Your task to perform on an android device: Show me productivity apps on the Play Store Image 0: 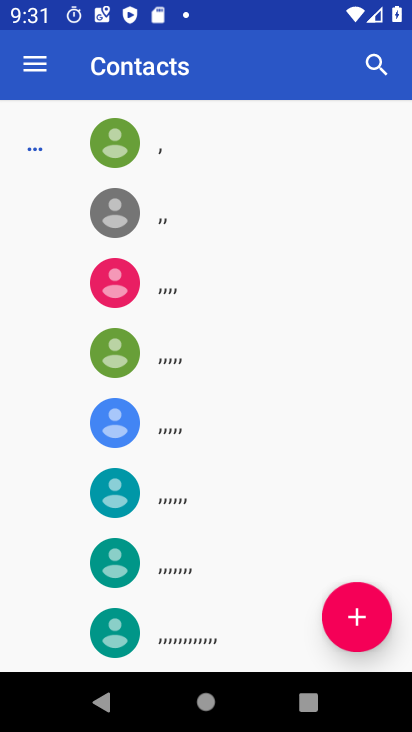
Step 0: press home button
Your task to perform on an android device: Show me productivity apps on the Play Store Image 1: 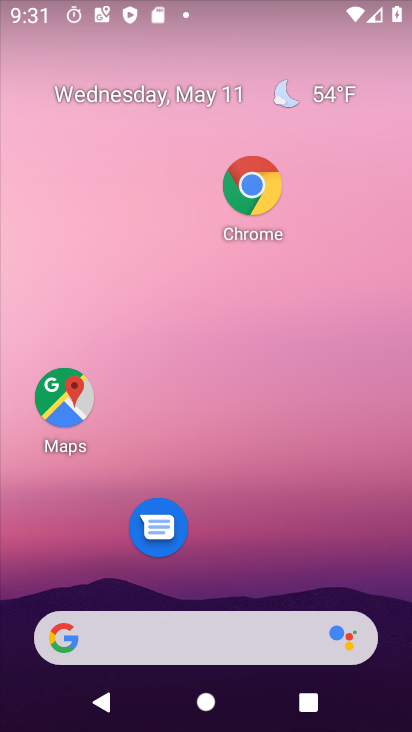
Step 1: drag from (263, 539) to (270, 122)
Your task to perform on an android device: Show me productivity apps on the Play Store Image 2: 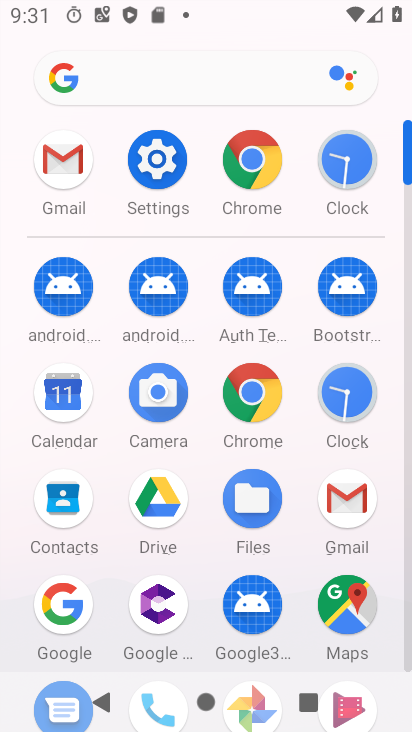
Step 2: drag from (202, 574) to (235, 123)
Your task to perform on an android device: Show me productivity apps on the Play Store Image 3: 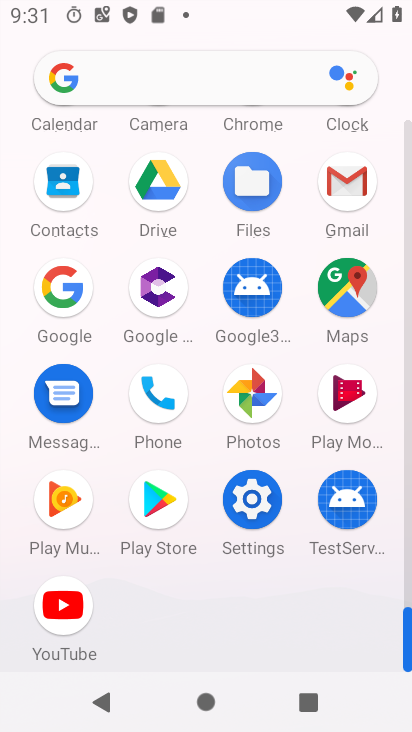
Step 3: click (161, 511)
Your task to perform on an android device: Show me productivity apps on the Play Store Image 4: 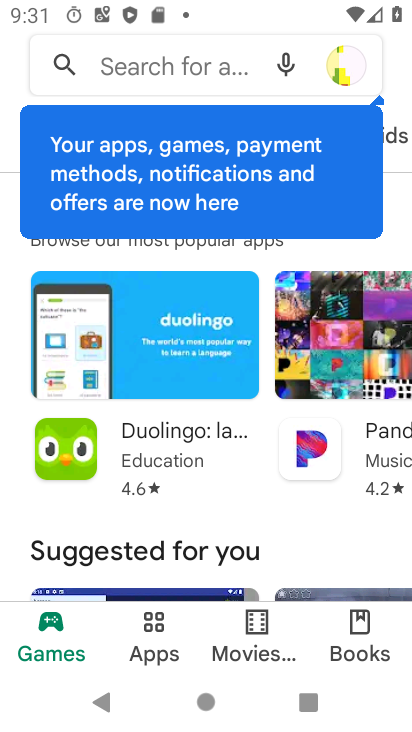
Step 4: click (252, 511)
Your task to perform on an android device: Show me productivity apps on the Play Store Image 5: 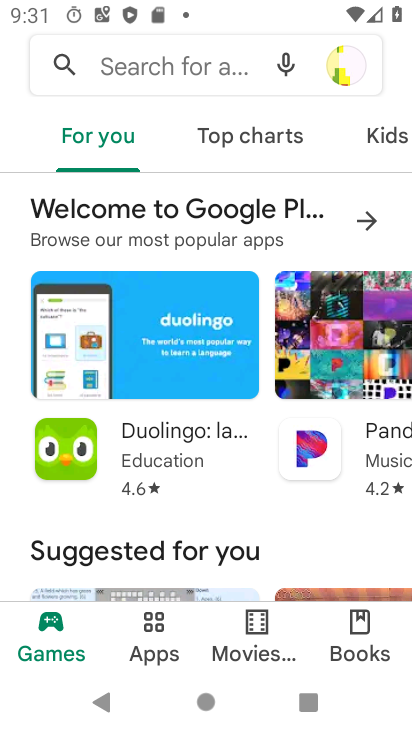
Step 5: click (159, 636)
Your task to perform on an android device: Show me productivity apps on the Play Store Image 6: 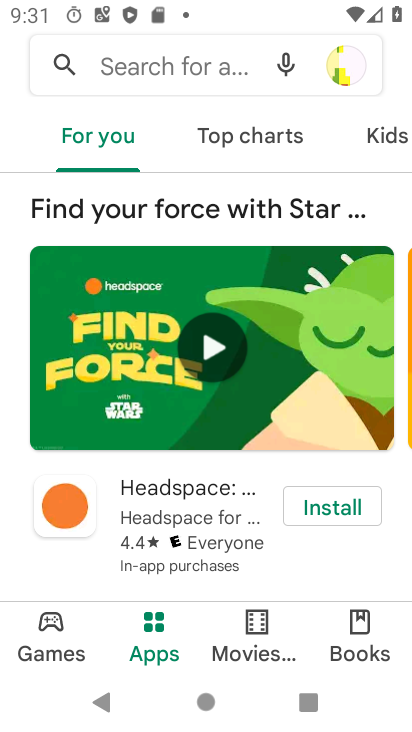
Step 6: click (252, 134)
Your task to perform on an android device: Show me productivity apps on the Play Store Image 7: 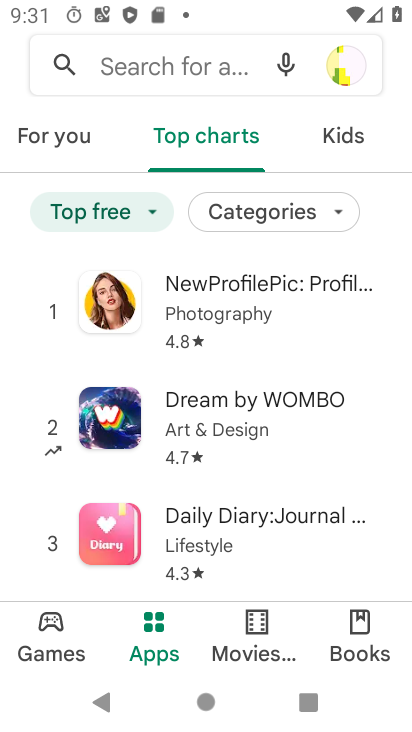
Step 7: click (316, 209)
Your task to perform on an android device: Show me productivity apps on the Play Store Image 8: 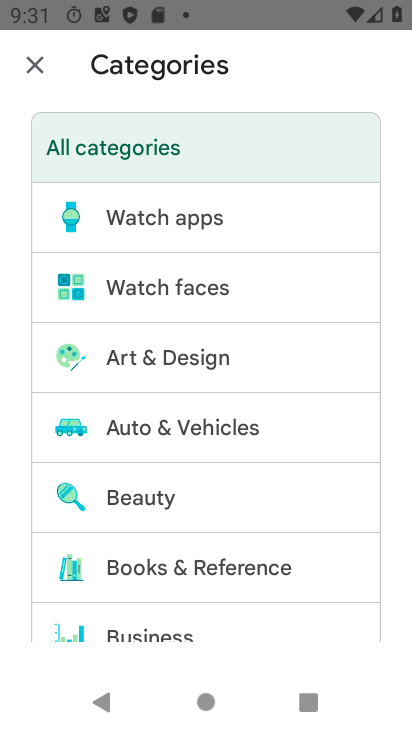
Step 8: drag from (245, 531) to (280, 81)
Your task to perform on an android device: Show me productivity apps on the Play Store Image 9: 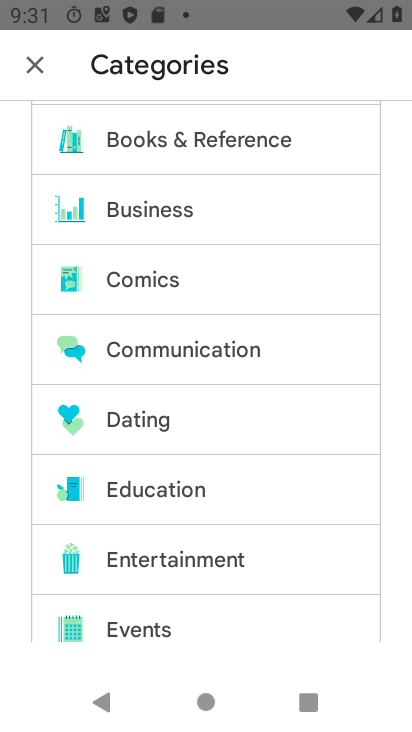
Step 9: click (42, 66)
Your task to perform on an android device: Show me productivity apps on the Play Store Image 10: 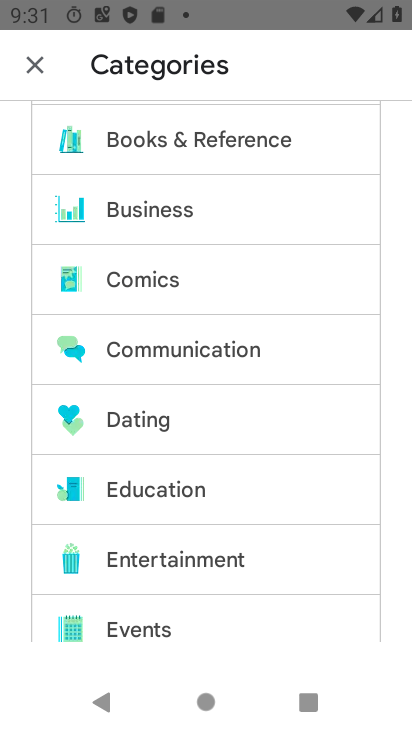
Step 10: click (36, 64)
Your task to perform on an android device: Show me productivity apps on the Play Store Image 11: 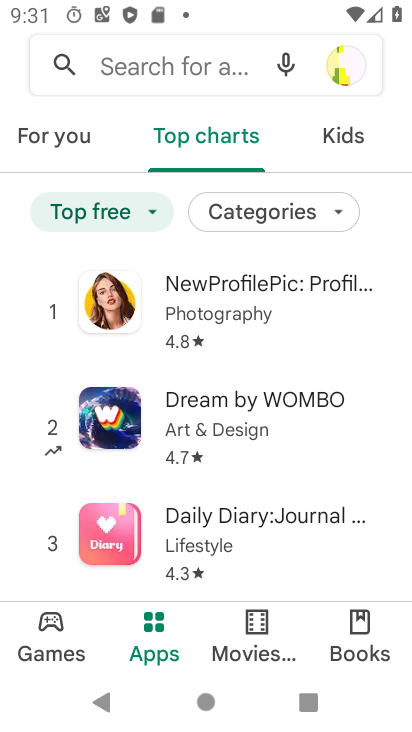
Step 11: task complete